Your task to perform on an android device: change notification settings in the gmail app Image 0: 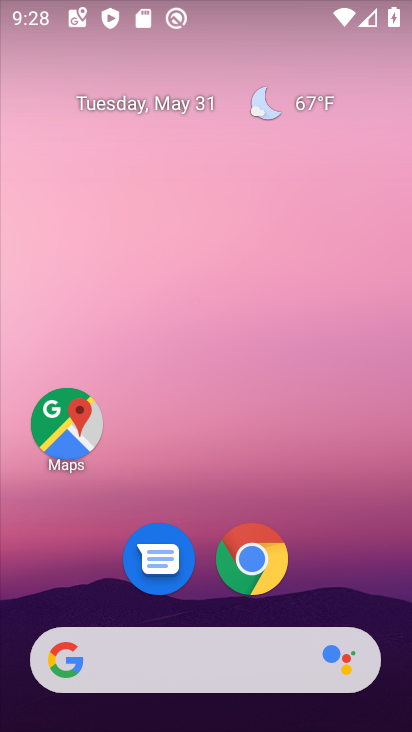
Step 0: drag from (329, 559) to (291, 41)
Your task to perform on an android device: change notification settings in the gmail app Image 1: 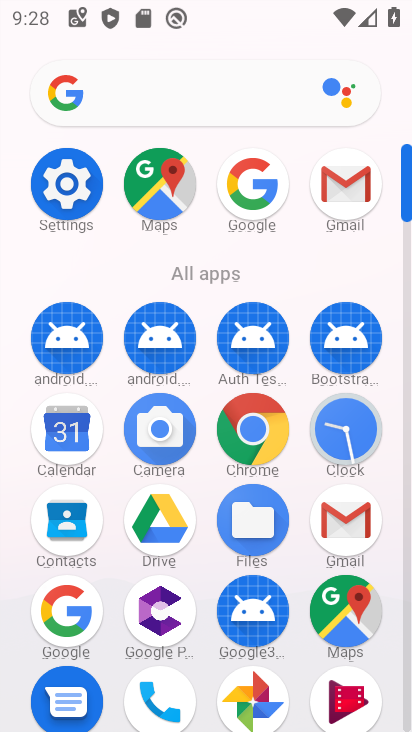
Step 1: click (348, 186)
Your task to perform on an android device: change notification settings in the gmail app Image 2: 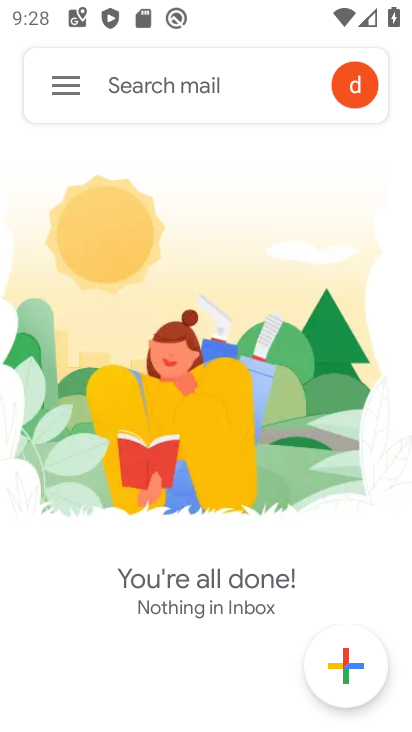
Step 2: click (54, 78)
Your task to perform on an android device: change notification settings in the gmail app Image 3: 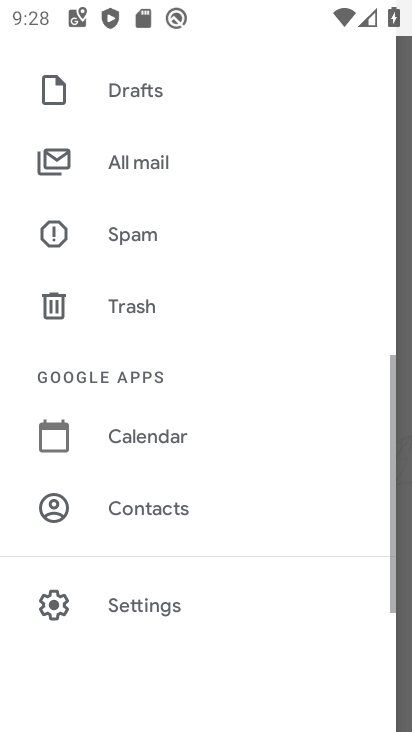
Step 3: click (131, 589)
Your task to perform on an android device: change notification settings in the gmail app Image 4: 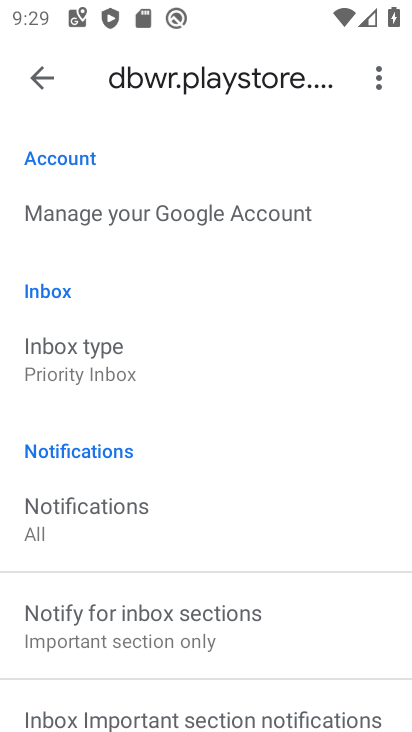
Step 4: click (96, 529)
Your task to perform on an android device: change notification settings in the gmail app Image 5: 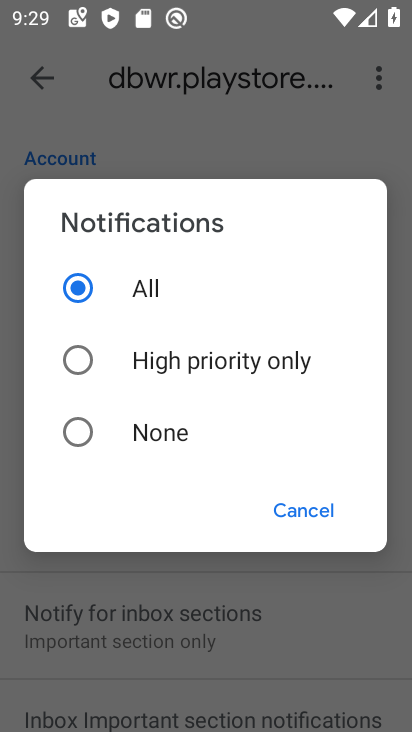
Step 5: click (87, 437)
Your task to perform on an android device: change notification settings in the gmail app Image 6: 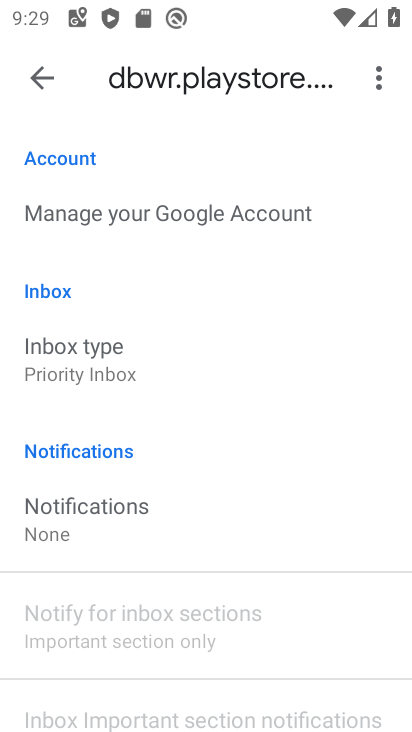
Step 6: task complete